Your task to perform on an android device: turn off wifi Image 0: 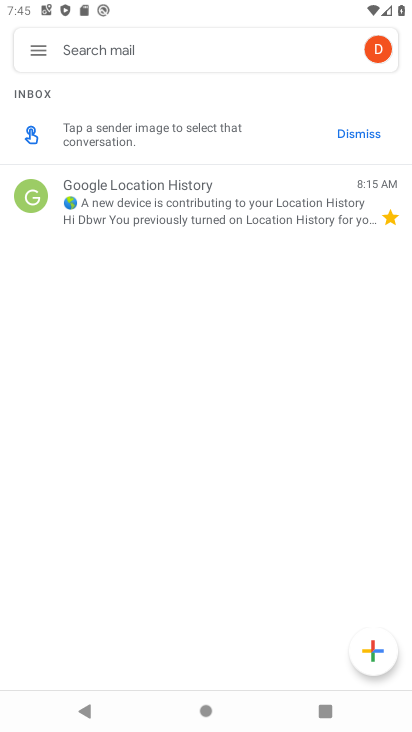
Step 0: press home button
Your task to perform on an android device: turn off wifi Image 1: 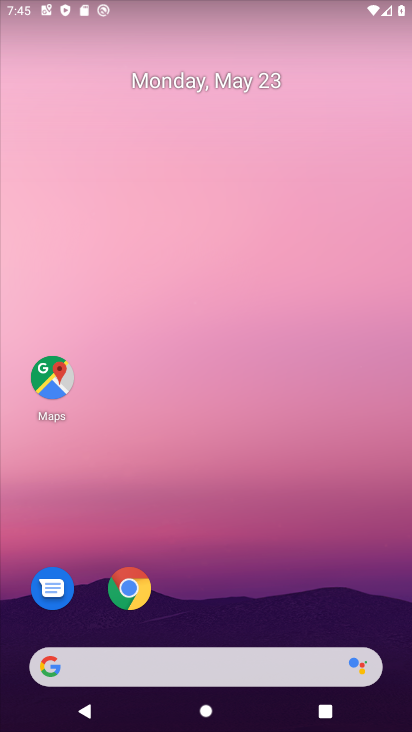
Step 1: drag from (395, 700) to (366, 107)
Your task to perform on an android device: turn off wifi Image 2: 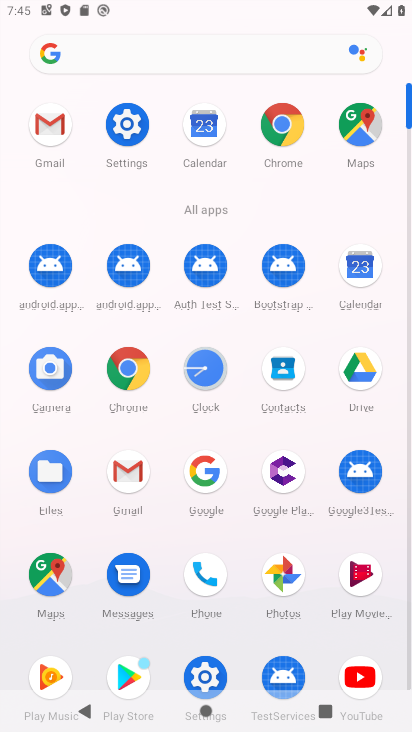
Step 2: click (138, 125)
Your task to perform on an android device: turn off wifi Image 3: 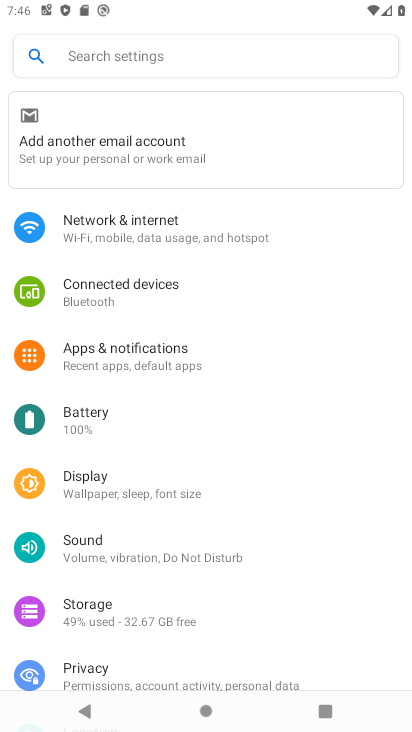
Step 3: click (156, 235)
Your task to perform on an android device: turn off wifi Image 4: 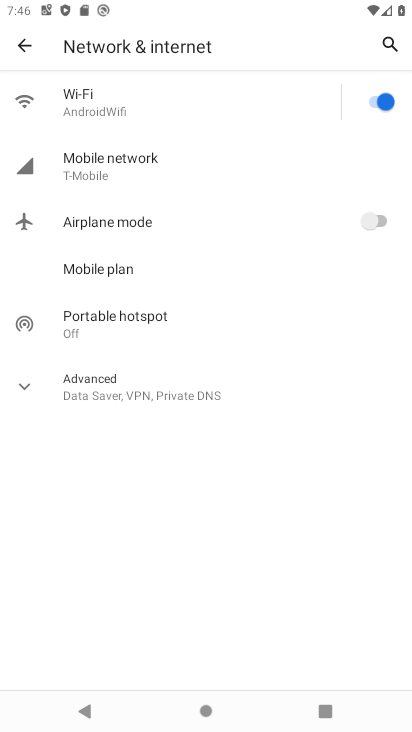
Step 4: click (373, 95)
Your task to perform on an android device: turn off wifi Image 5: 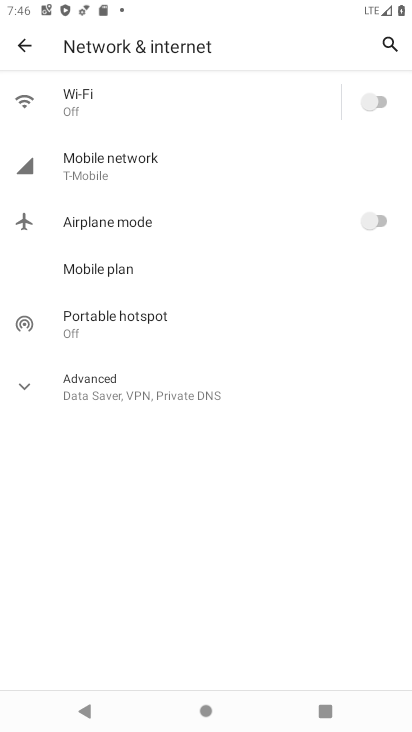
Step 5: task complete